Your task to perform on an android device: Open Google Chrome Image 0: 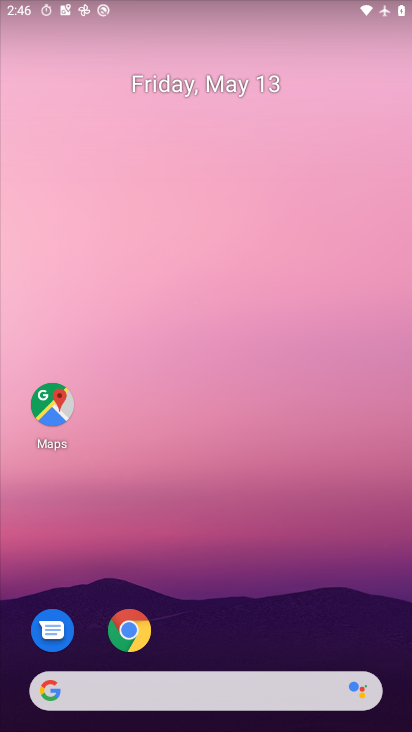
Step 0: drag from (271, 612) to (298, 207)
Your task to perform on an android device: Open Google Chrome Image 1: 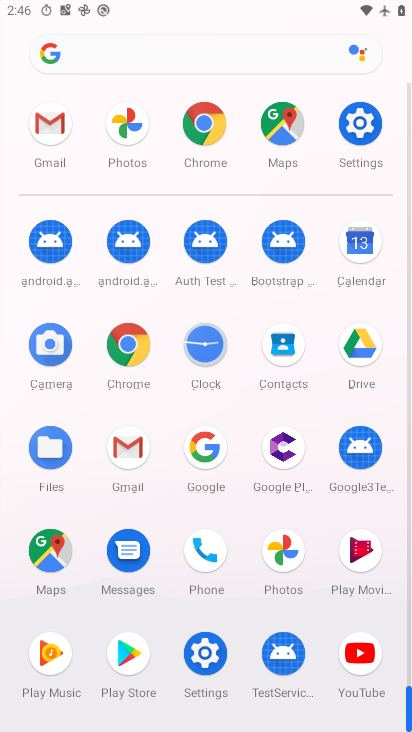
Step 1: click (137, 359)
Your task to perform on an android device: Open Google Chrome Image 2: 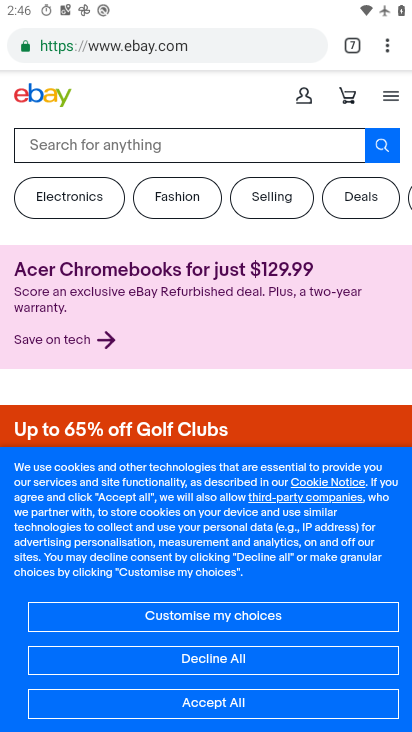
Step 2: task complete